Your task to perform on an android device: Open Google Chrome Image 0: 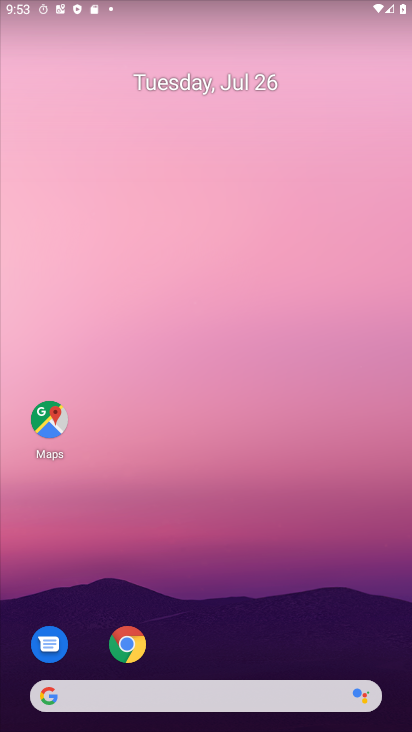
Step 0: click (243, 43)
Your task to perform on an android device: Open Google Chrome Image 1: 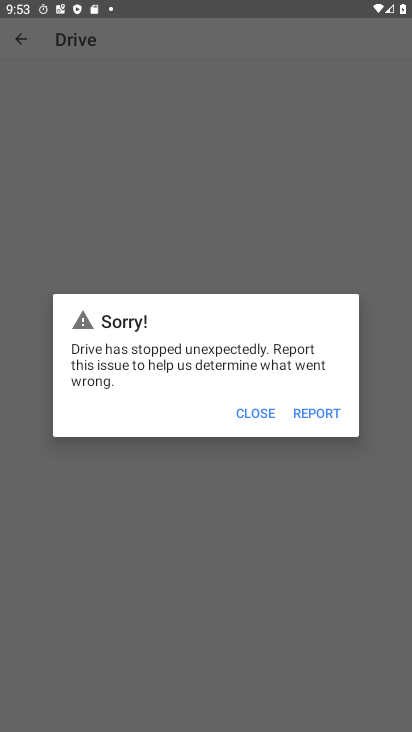
Step 1: press home button
Your task to perform on an android device: Open Google Chrome Image 2: 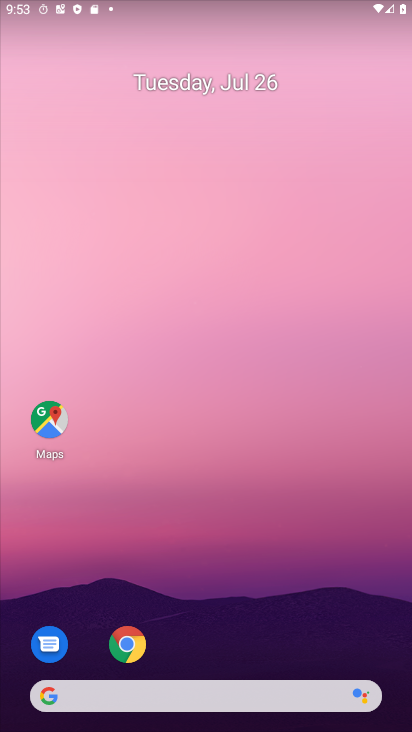
Step 2: click (139, 645)
Your task to perform on an android device: Open Google Chrome Image 3: 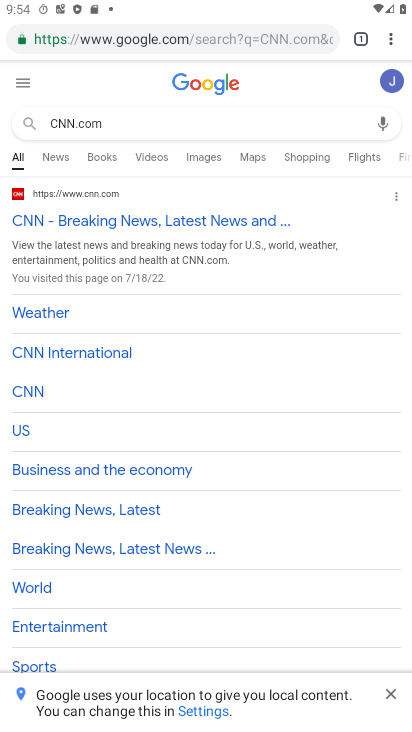
Step 3: task complete